Your task to perform on an android device: change keyboard looks Image 0: 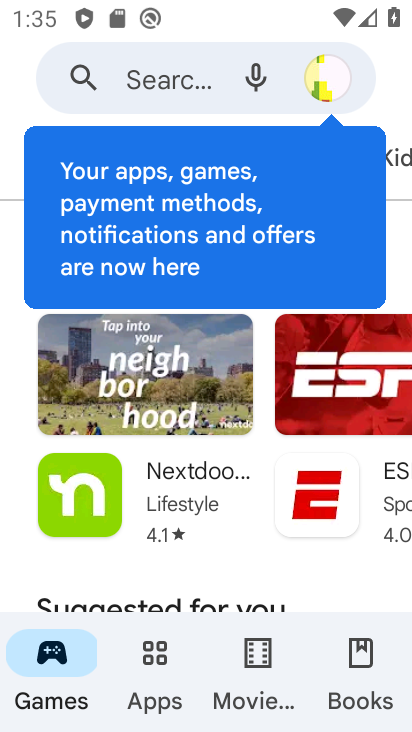
Step 0: press home button
Your task to perform on an android device: change keyboard looks Image 1: 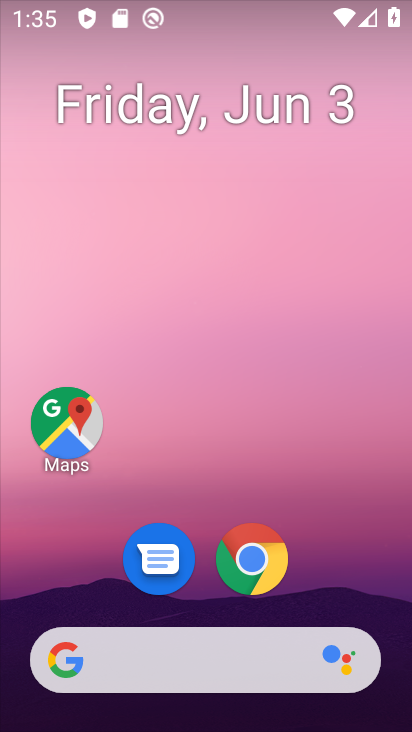
Step 1: drag from (398, 583) to (385, 275)
Your task to perform on an android device: change keyboard looks Image 2: 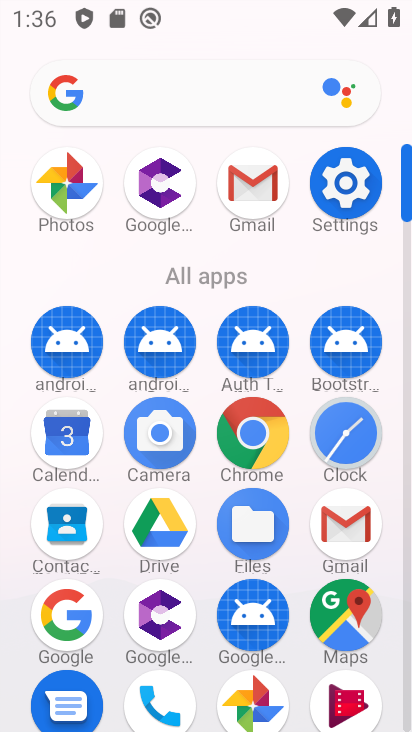
Step 2: click (349, 165)
Your task to perform on an android device: change keyboard looks Image 3: 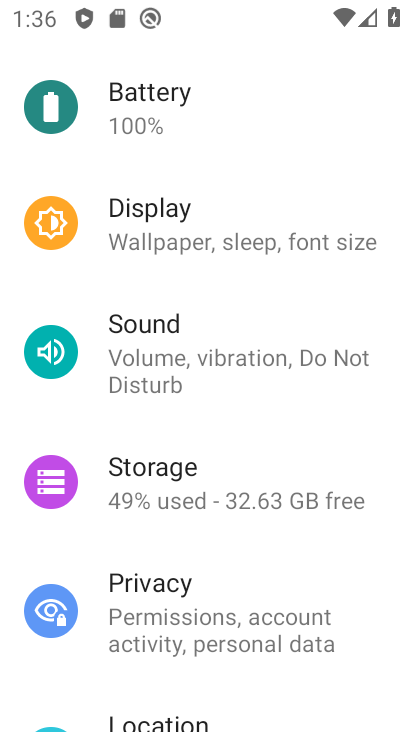
Step 3: drag from (314, 627) to (338, 202)
Your task to perform on an android device: change keyboard looks Image 4: 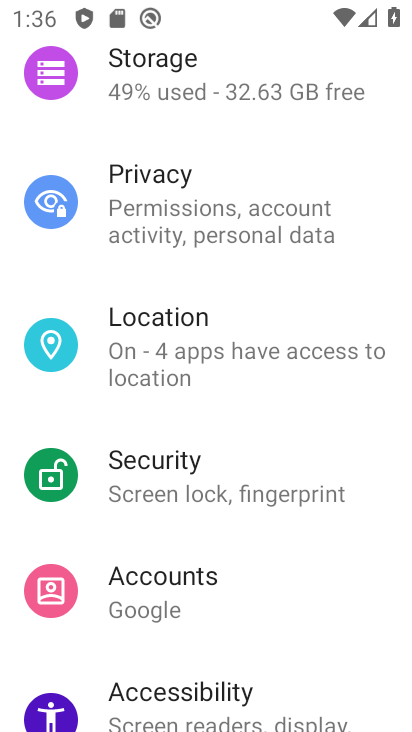
Step 4: drag from (284, 618) to (303, 181)
Your task to perform on an android device: change keyboard looks Image 5: 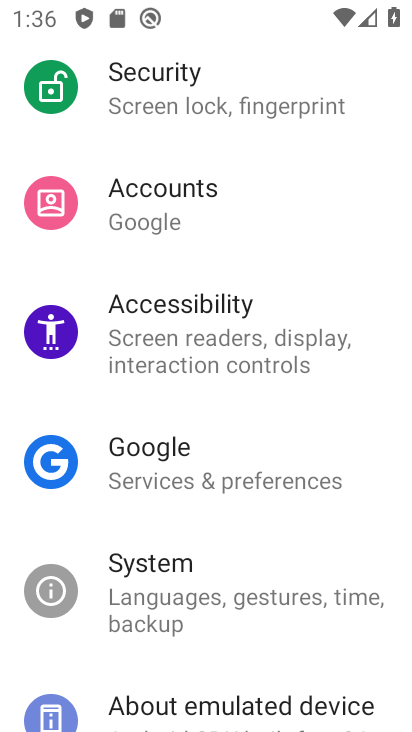
Step 5: click (269, 603)
Your task to perform on an android device: change keyboard looks Image 6: 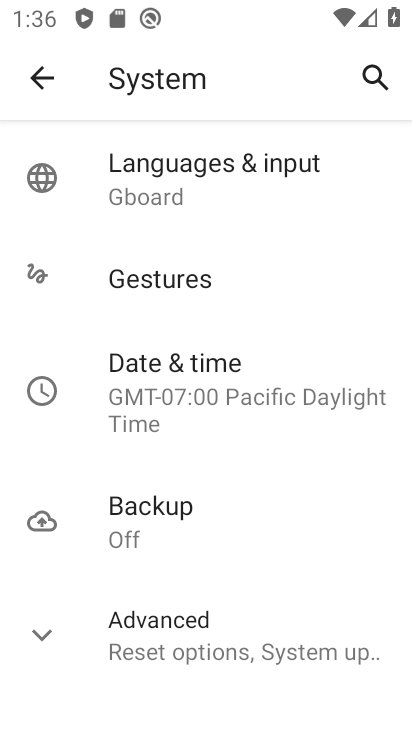
Step 6: click (264, 183)
Your task to perform on an android device: change keyboard looks Image 7: 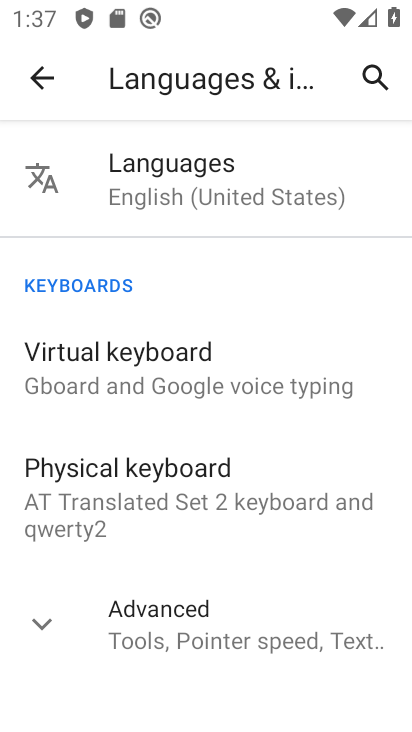
Step 7: click (271, 365)
Your task to perform on an android device: change keyboard looks Image 8: 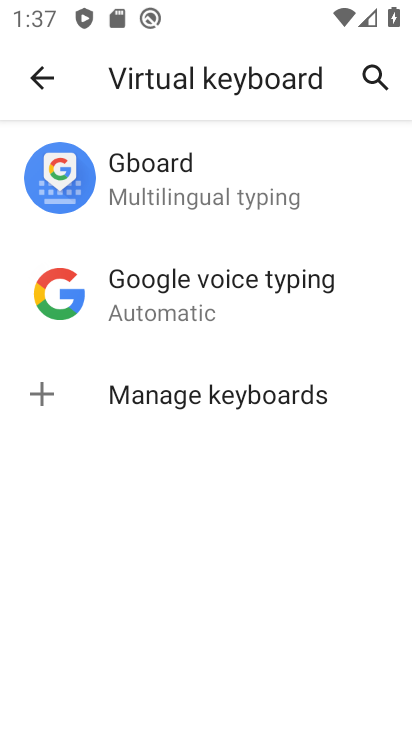
Step 8: click (243, 200)
Your task to perform on an android device: change keyboard looks Image 9: 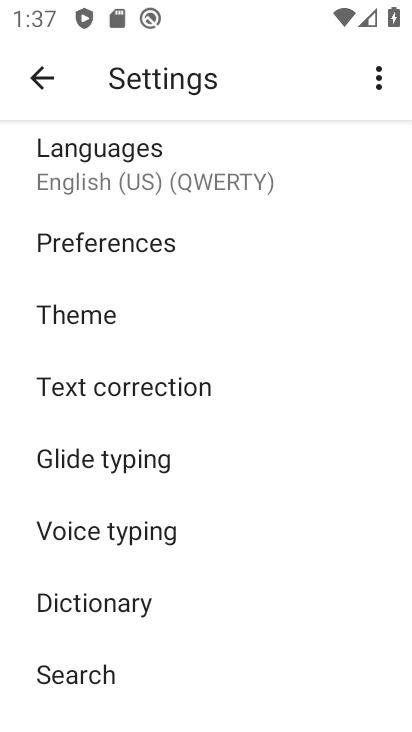
Step 9: click (204, 312)
Your task to perform on an android device: change keyboard looks Image 10: 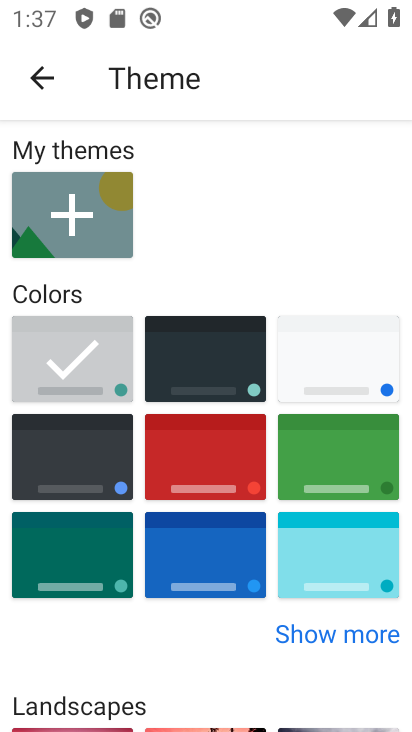
Step 10: click (238, 463)
Your task to perform on an android device: change keyboard looks Image 11: 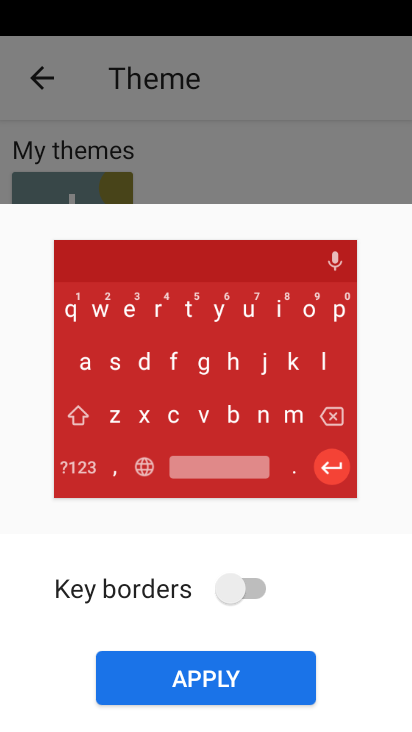
Step 11: click (277, 658)
Your task to perform on an android device: change keyboard looks Image 12: 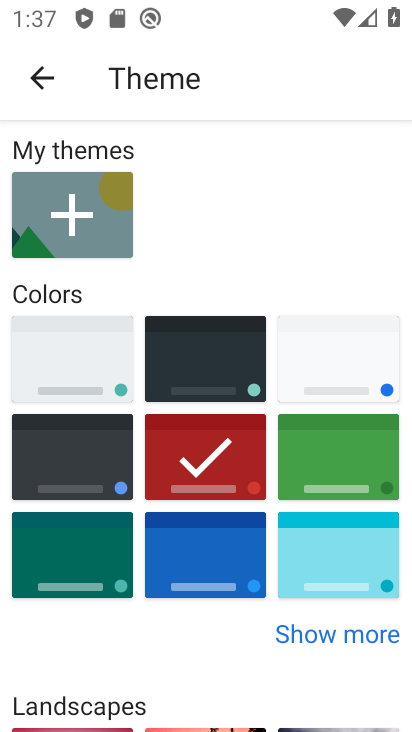
Step 12: task complete